Your task to perform on an android device: Go to Wikipedia Image 0: 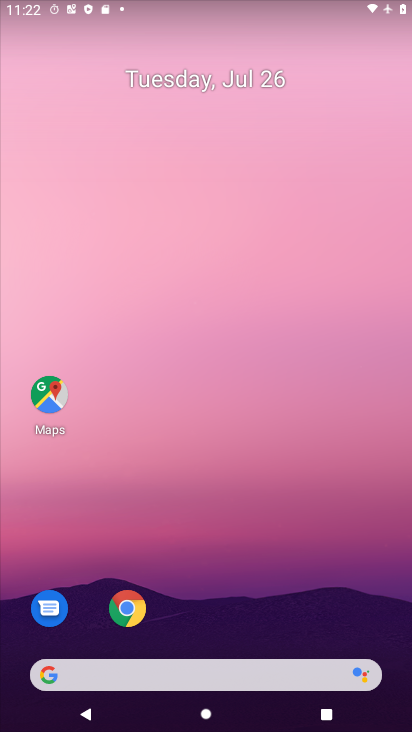
Step 0: click (111, 602)
Your task to perform on an android device: Go to Wikipedia Image 1: 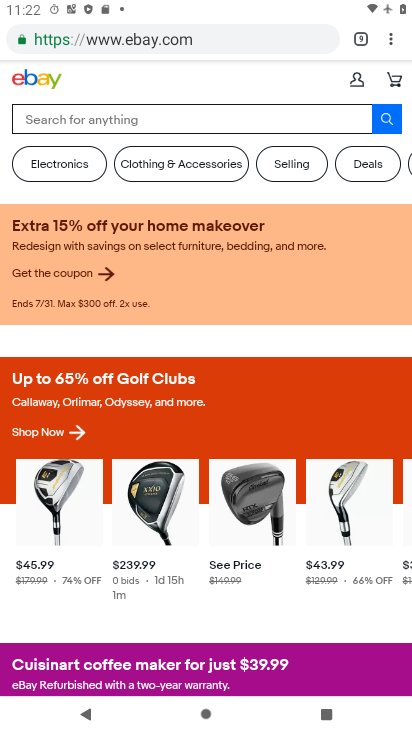
Step 1: click (365, 40)
Your task to perform on an android device: Go to Wikipedia Image 2: 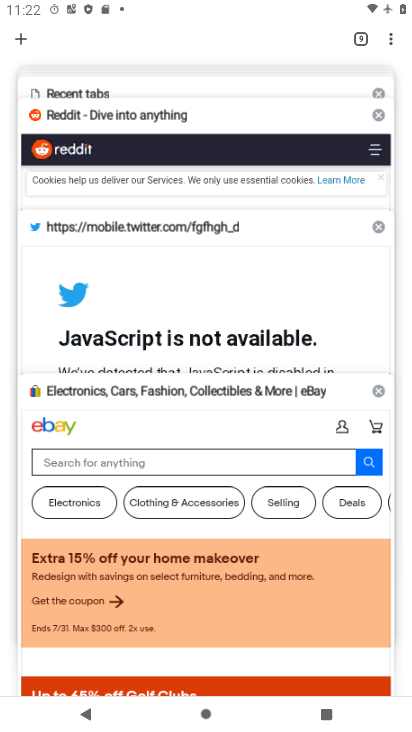
Step 2: click (30, 37)
Your task to perform on an android device: Go to Wikipedia Image 3: 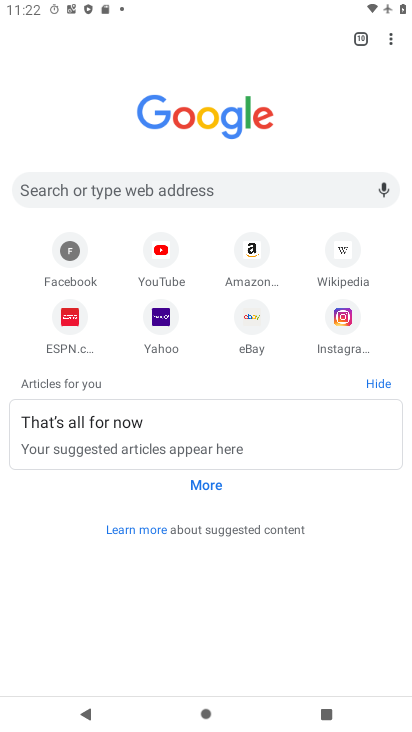
Step 3: click (337, 251)
Your task to perform on an android device: Go to Wikipedia Image 4: 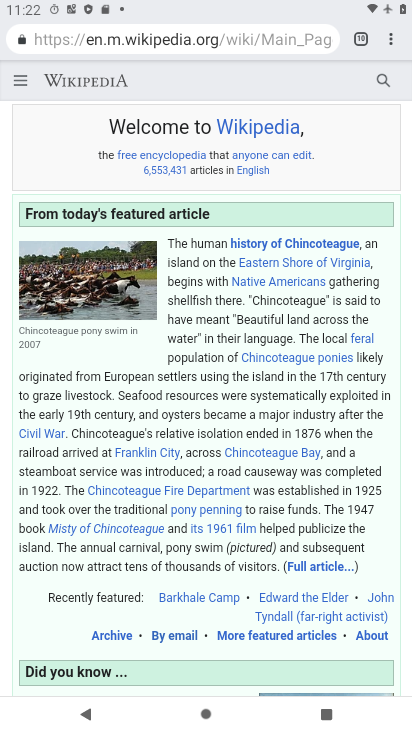
Step 4: task complete